Your task to perform on an android device: turn off picture-in-picture Image 0: 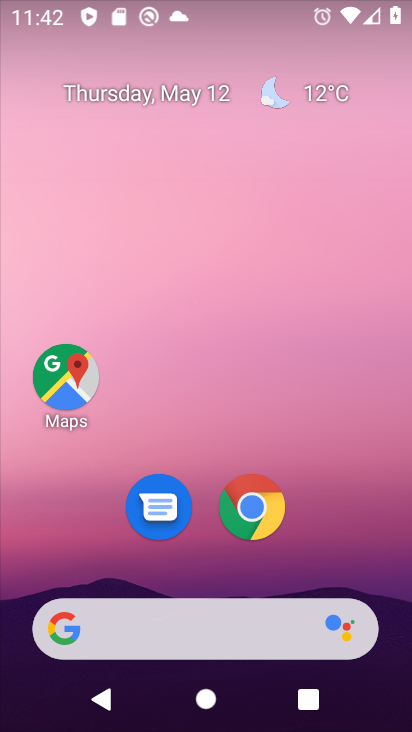
Step 0: click (256, 523)
Your task to perform on an android device: turn off picture-in-picture Image 1: 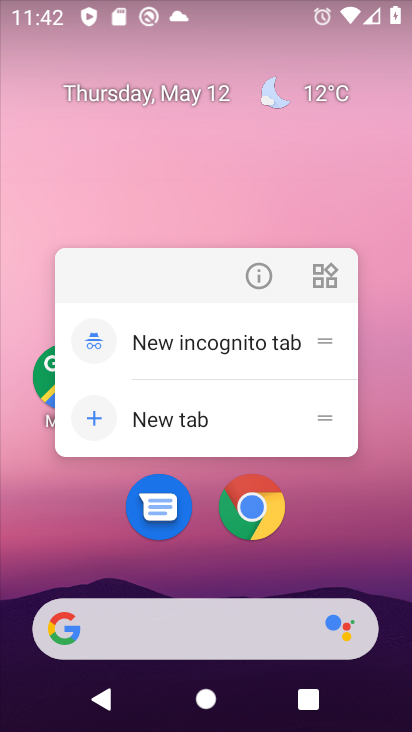
Step 1: click (246, 282)
Your task to perform on an android device: turn off picture-in-picture Image 2: 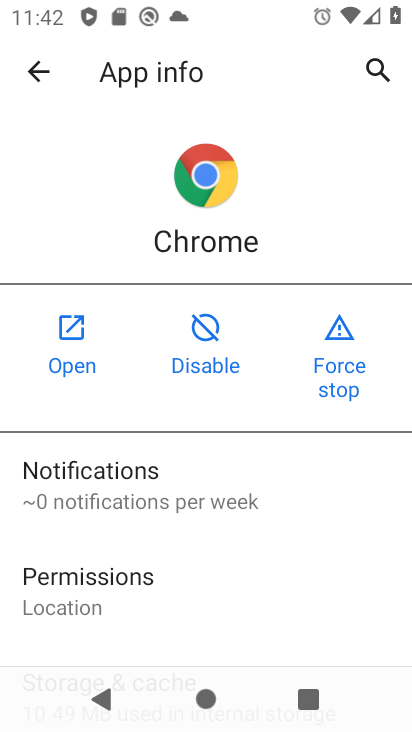
Step 2: drag from (170, 516) to (292, 71)
Your task to perform on an android device: turn off picture-in-picture Image 3: 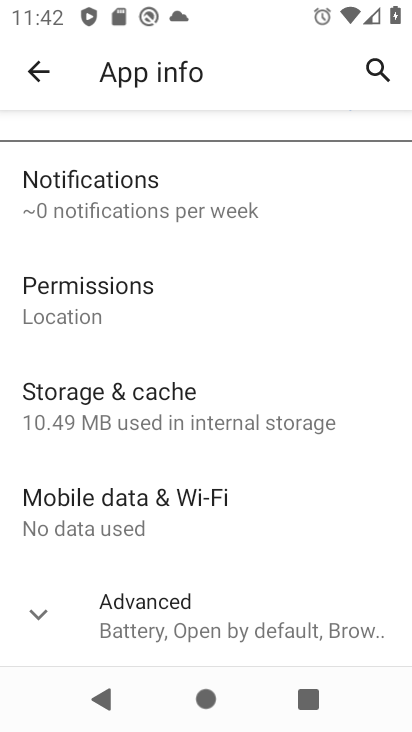
Step 3: click (131, 633)
Your task to perform on an android device: turn off picture-in-picture Image 4: 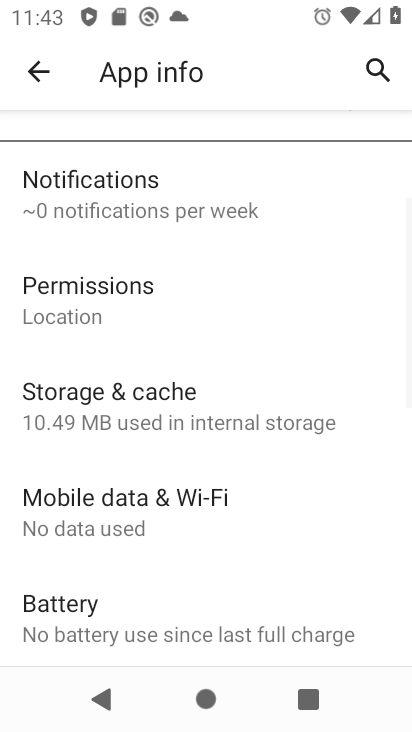
Step 4: drag from (142, 610) to (186, 132)
Your task to perform on an android device: turn off picture-in-picture Image 5: 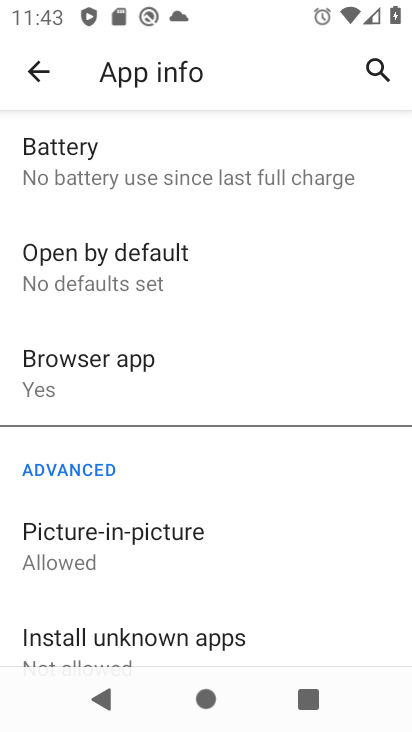
Step 5: click (118, 541)
Your task to perform on an android device: turn off picture-in-picture Image 6: 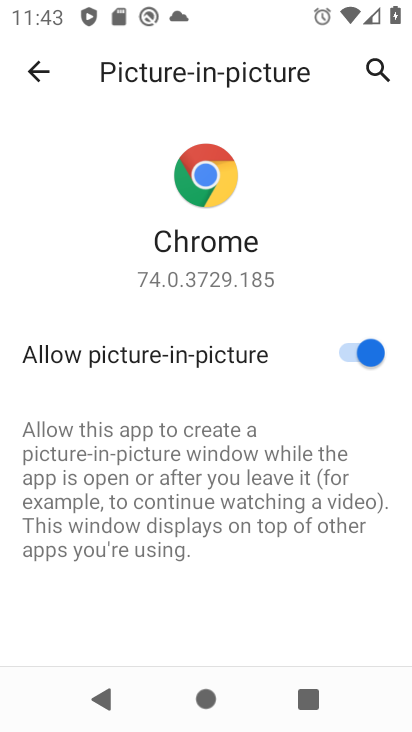
Step 6: click (349, 361)
Your task to perform on an android device: turn off picture-in-picture Image 7: 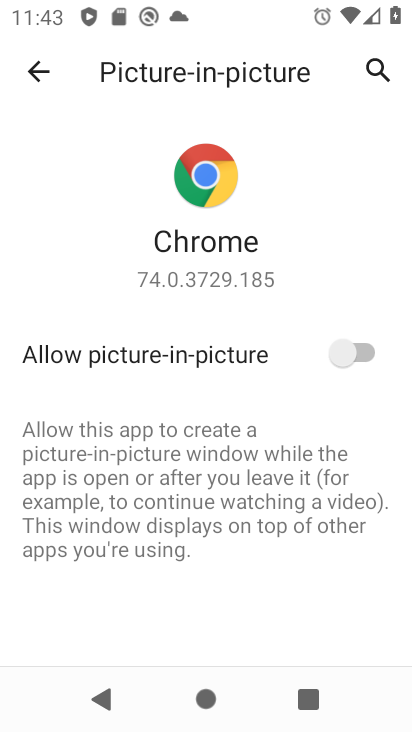
Step 7: task complete